Your task to perform on an android device: Go to Yahoo.com Image 0: 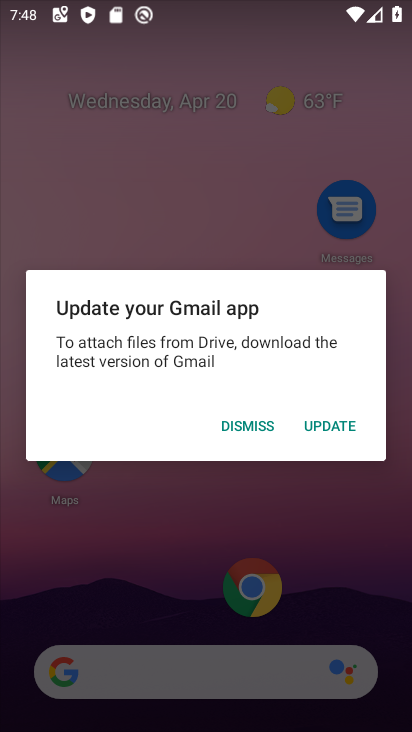
Step 0: press home button
Your task to perform on an android device: Go to Yahoo.com Image 1: 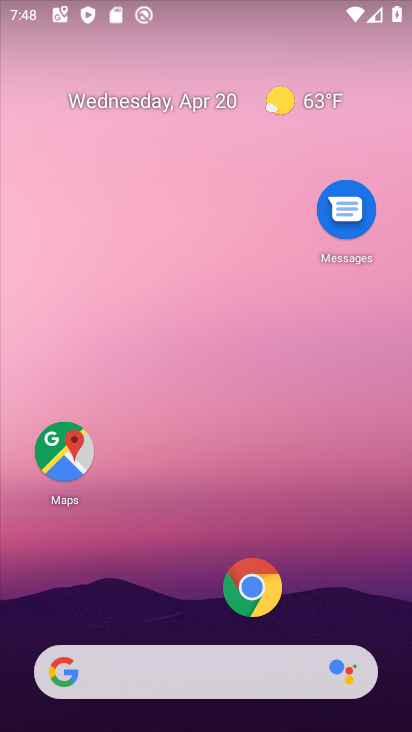
Step 1: drag from (143, 683) to (388, 14)
Your task to perform on an android device: Go to Yahoo.com Image 2: 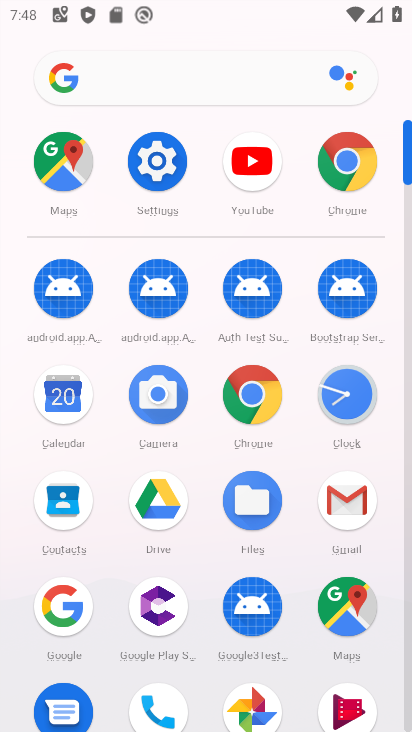
Step 2: click (348, 170)
Your task to perform on an android device: Go to Yahoo.com Image 3: 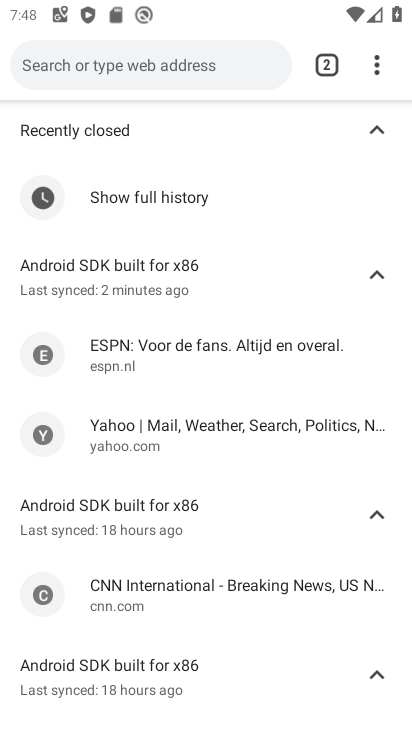
Step 3: click (374, 69)
Your task to perform on an android device: Go to Yahoo.com Image 4: 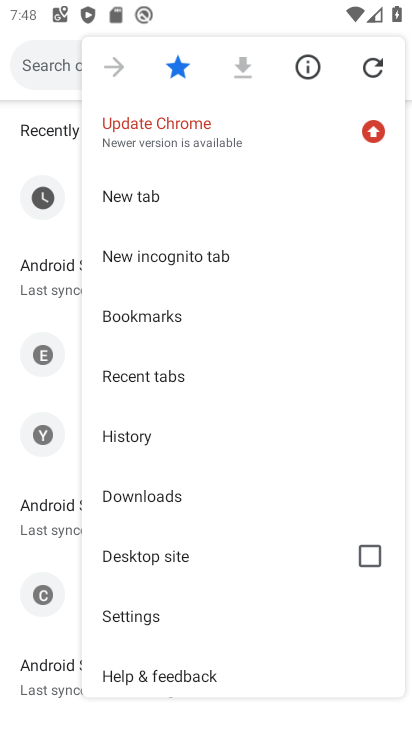
Step 4: click (140, 193)
Your task to perform on an android device: Go to Yahoo.com Image 5: 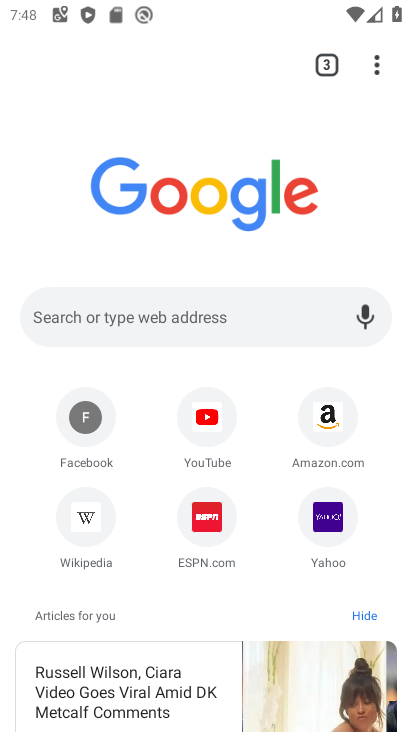
Step 5: click (334, 532)
Your task to perform on an android device: Go to Yahoo.com Image 6: 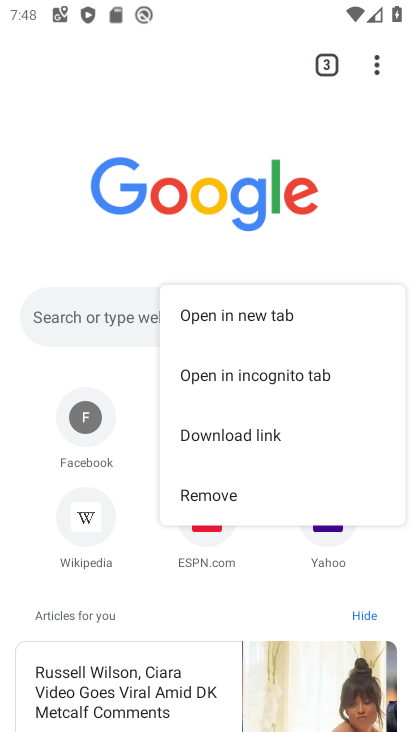
Step 6: click (332, 535)
Your task to perform on an android device: Go to Yahoo.com Image 7: 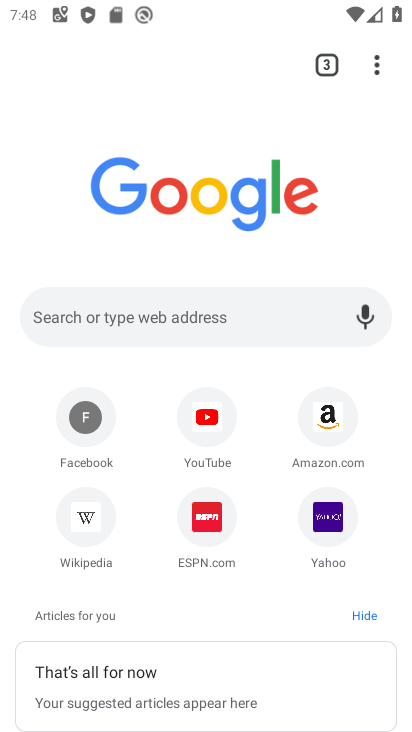
Step 7: click (334, 519)
Your task to perform on an android device: Go to Yahoo.com Image 8: 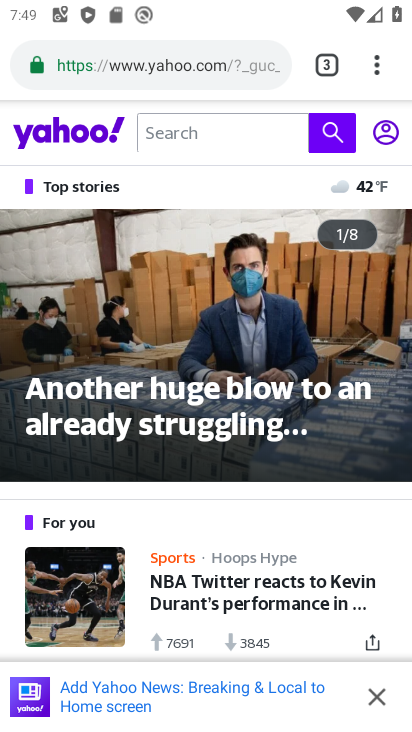
Step 8: task complete